Your task to perform on an android device: Open Google Image 0: 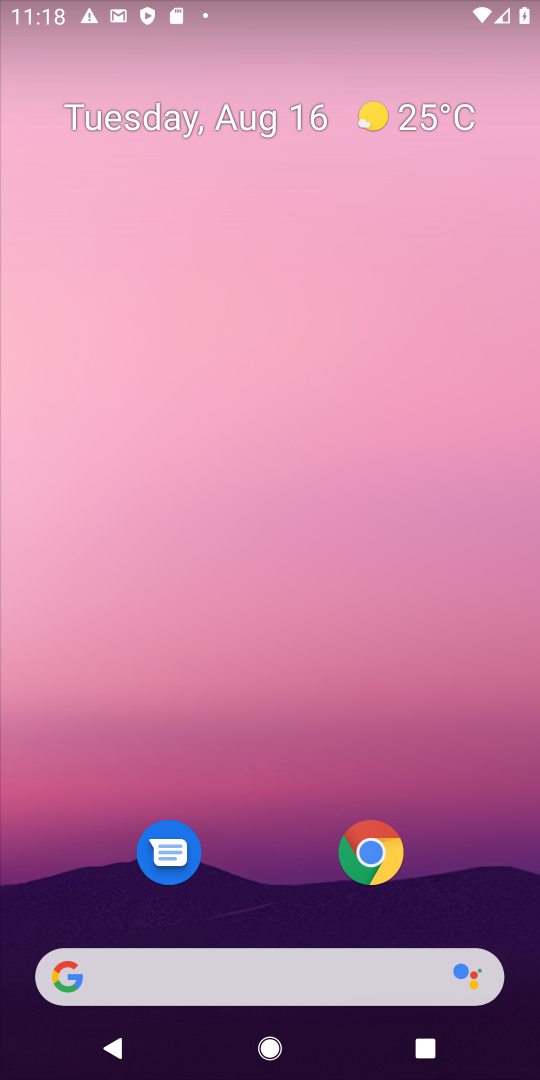
Step 0: drag from (253, 789) to (288, 234)
Your task to perform on an android device: Open Google Image 1: 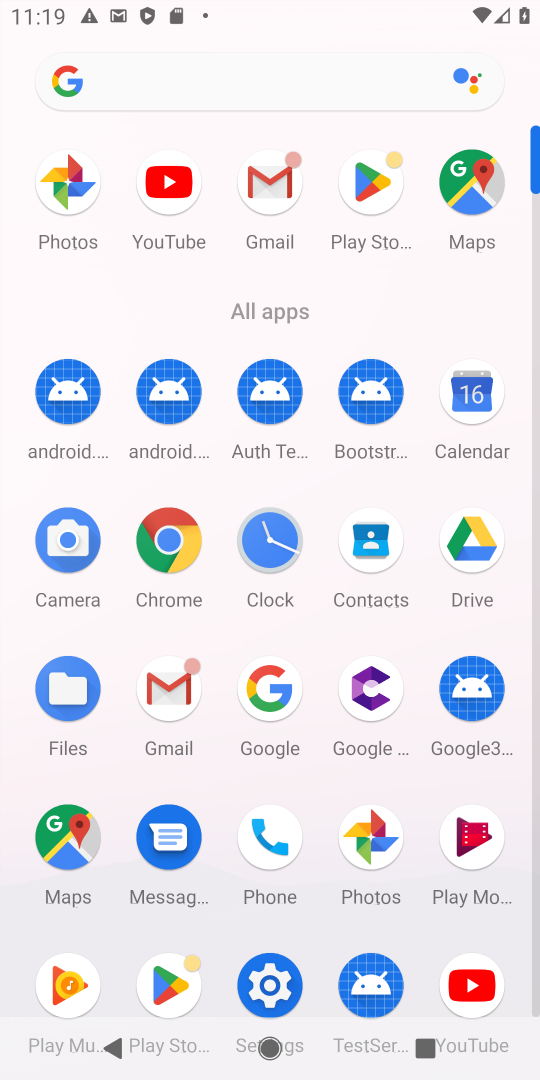
Step 1: click (262, 693)
Your task to perform on an android device: Open Google Image 2: 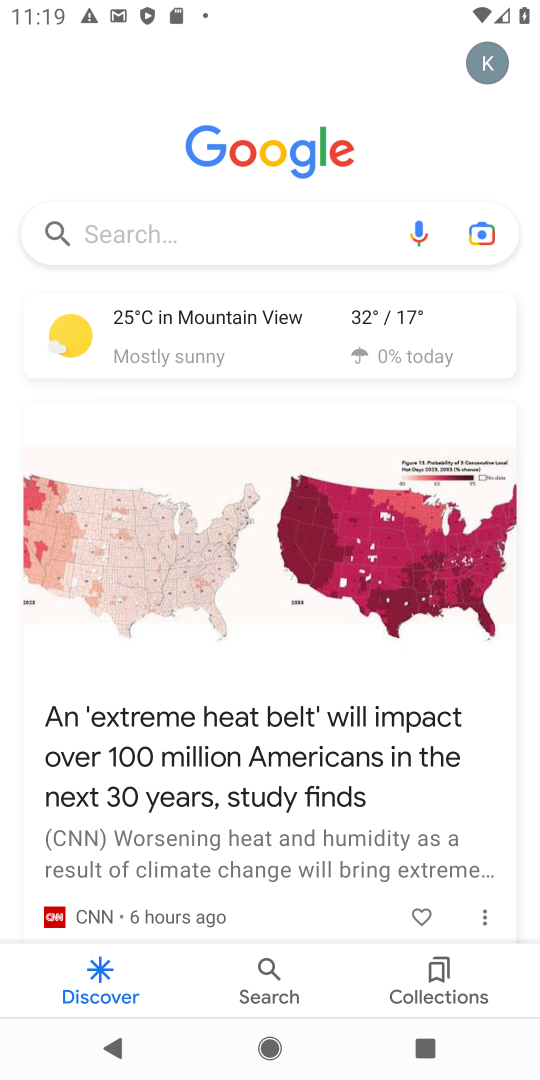
Step 2: task complete